Your task to perform on an android device: Open the stopwatch Image 0: 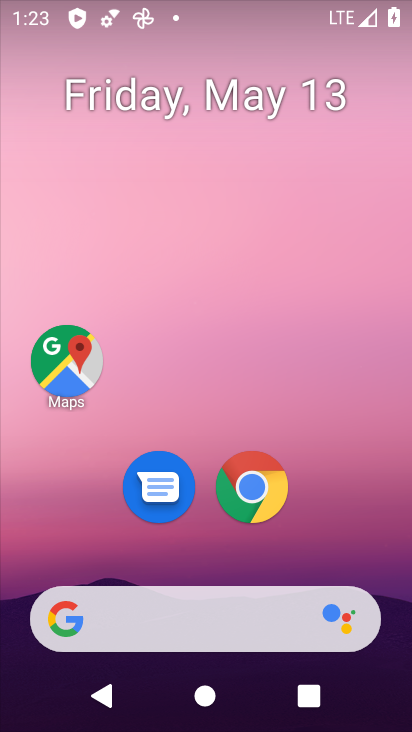
Step 0: drag from (350, 520) to (344, 192)
Your task to perform on an android device: Open the stopwatch Image 1: 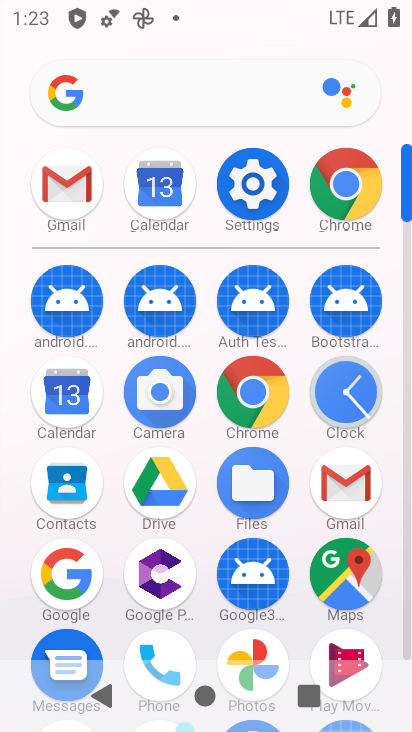
Step 1: click (355, 393)
Your task to perform on an android device: Open the stopwatch Image 2: 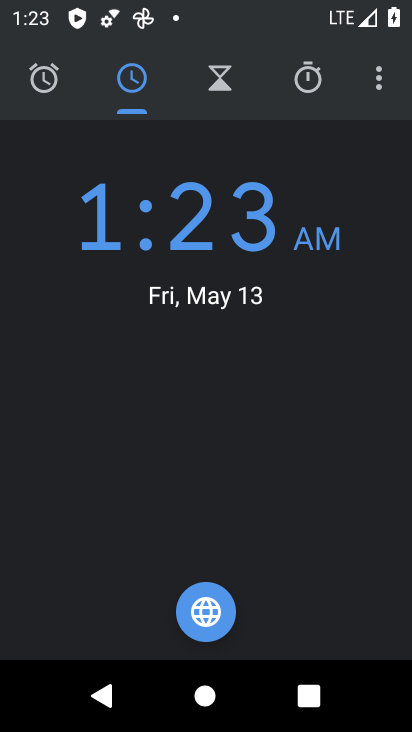
Step 2: click (308, 84)
Your task to perform on an android device: Open the stopwatch Image 3: 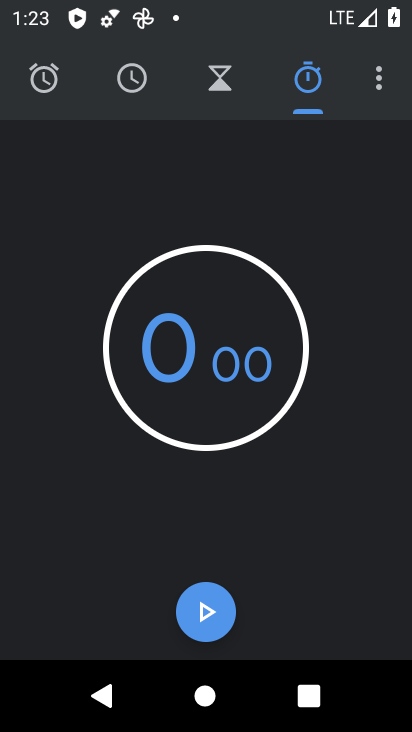
Step 3: click (198, 611)
Your task to perform on an android device: Open the stopwatch Image 4: 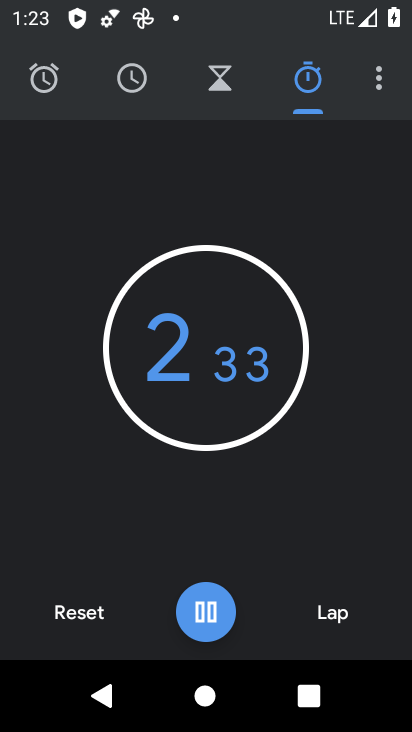
Step 4: click (198, 611)
Your task to perform on an android device: Open the stopwatch Image 5: 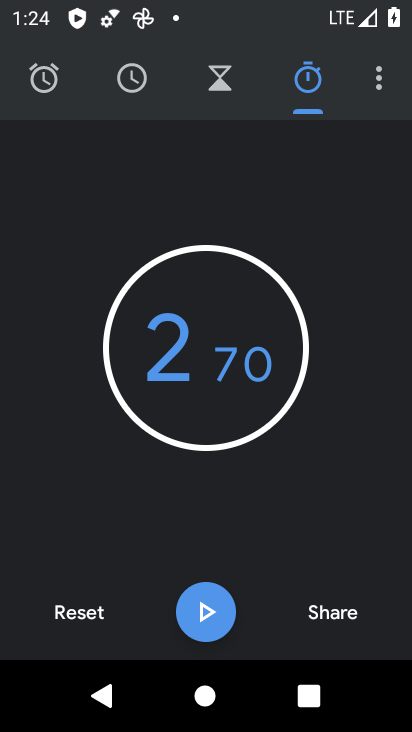
Step 5: task complete